Your task to perform on an android device: toggle airplane mode Image 0: 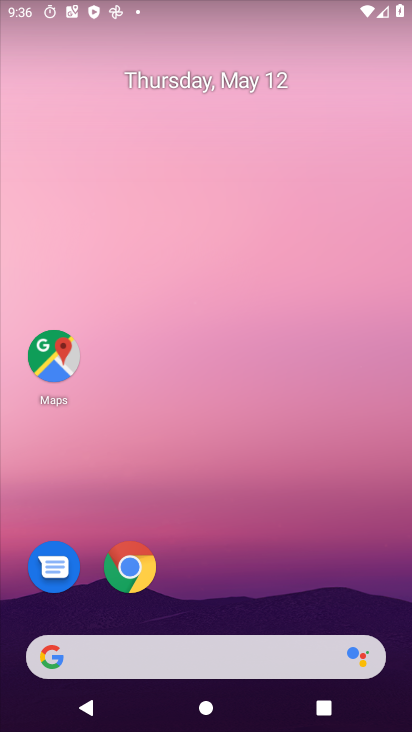
Step 0: drag from (264, 657) to (325, 190)
Your task to perform on an android device: toggle airplane mode Image 1: 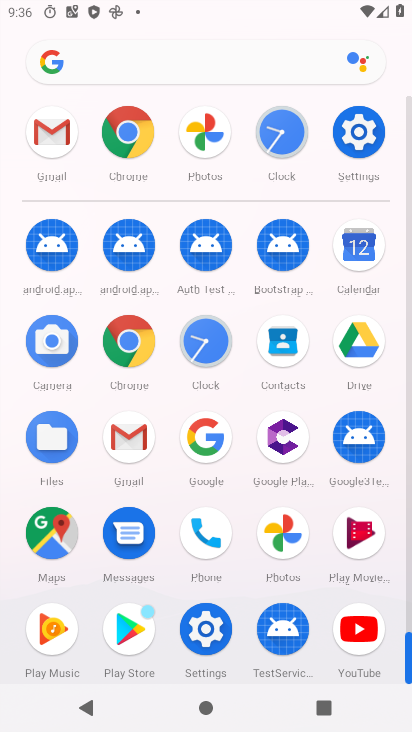
Step 1: click (367, 154)
Your task to perform on an android device: toggle airplane mode Image 2: 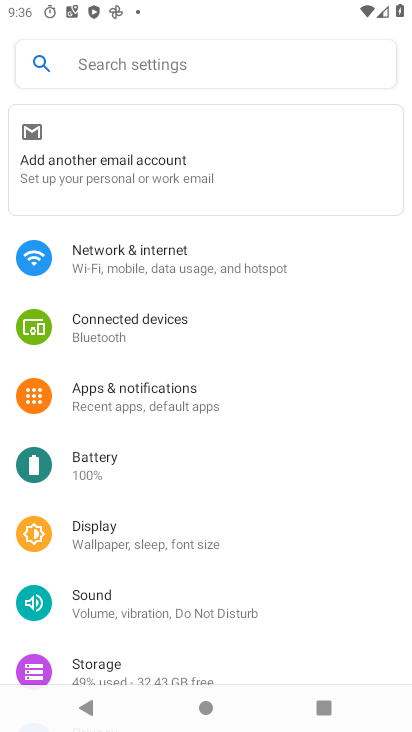
Step 2: click (243, 254)
Your task to perform on an android device: toggle airplane mode Image 3: 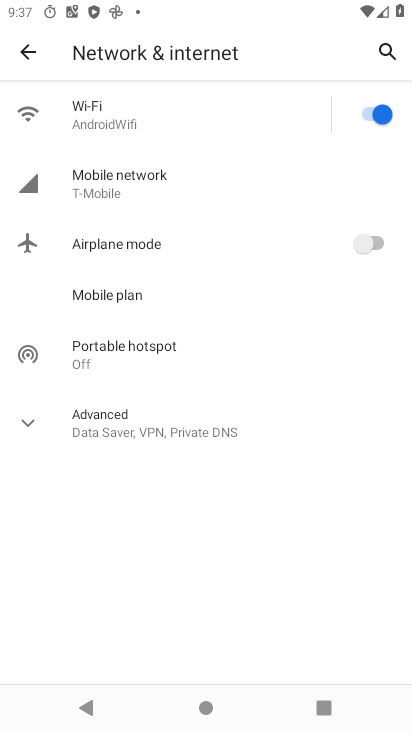
Step 3: click (243, 253)
Your task to perform on an android device: toggle airplane mode Image 4: 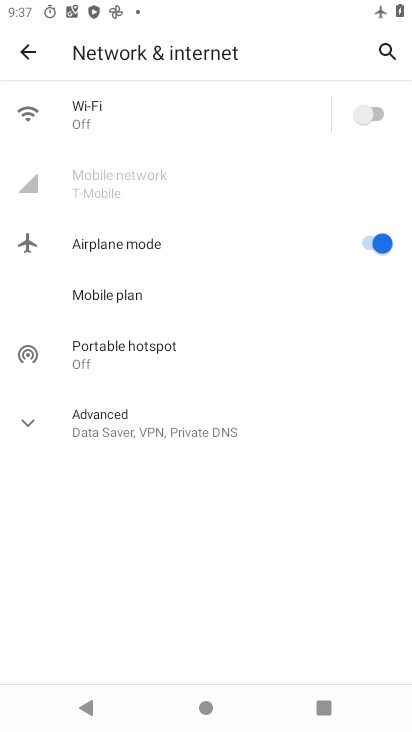
Step 4: task complete